Your task to perform on an android device: Open my contact list Image 0: 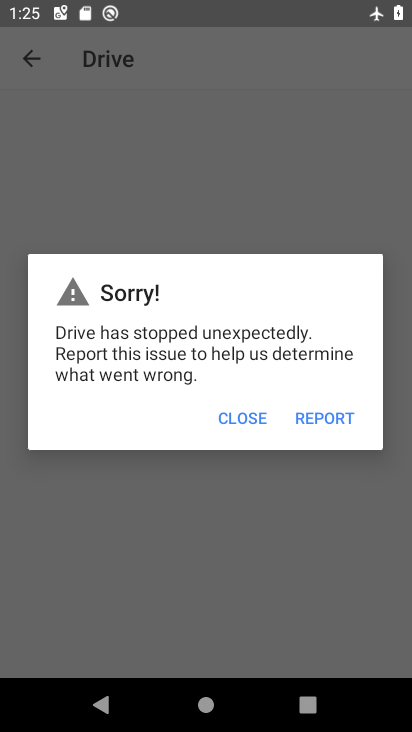
Step 0: press home button
Your task to perform on an android device: Open my contact list Image 1: 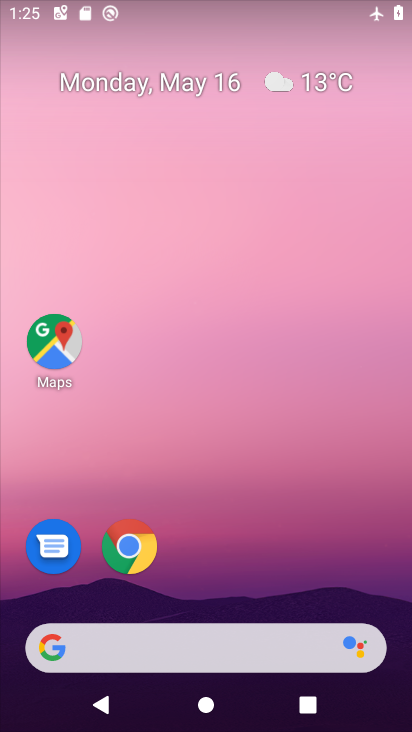
Step 1: drag from (212, 728) to (212, 188)
Your task to perform on an android device: Open my contact list Image 2: 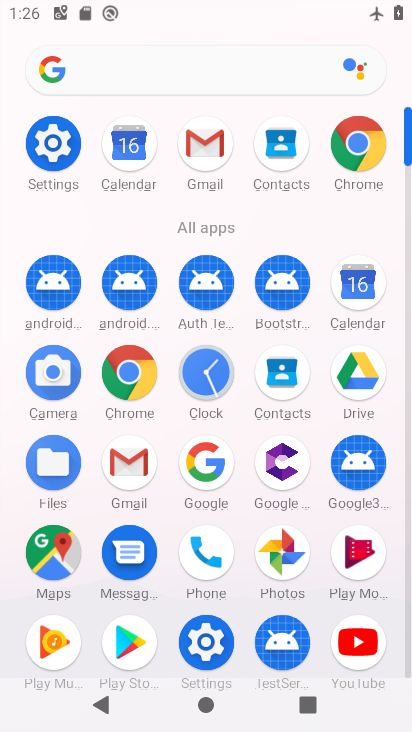
Step 2: click (282, 376)
Your task to perform on an android device: Open my contact list Image 3: 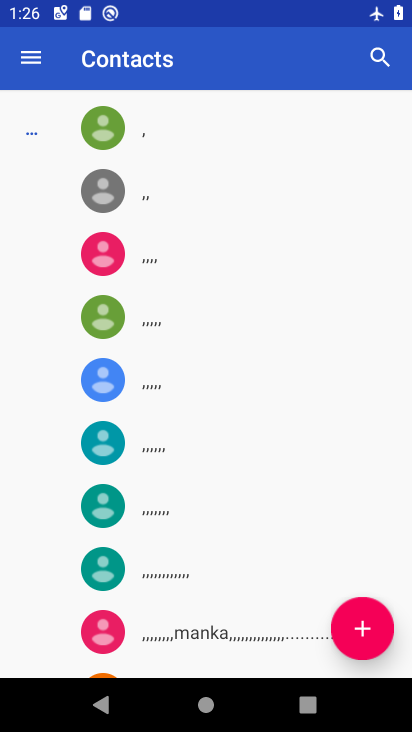
Step 3: task complete